Your task to perform on an android device: Do I have any events this weekend? Image 0: 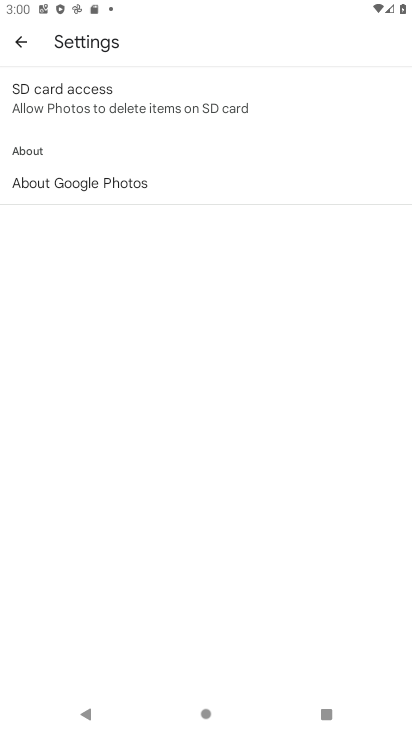
Step 0: press home button
Your task to perform on an android device: Do I have any events this weekend? Image 1: 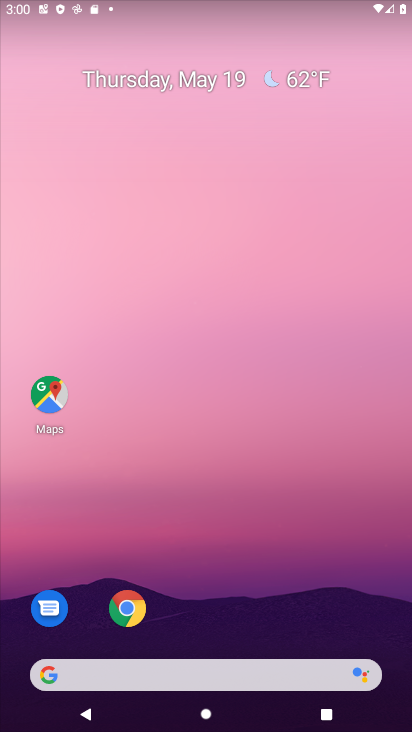
Step 1: drag from (315, 540) to (167, 84)
Your task to perform on an android device: Do I have any events this weekend? Image 2: 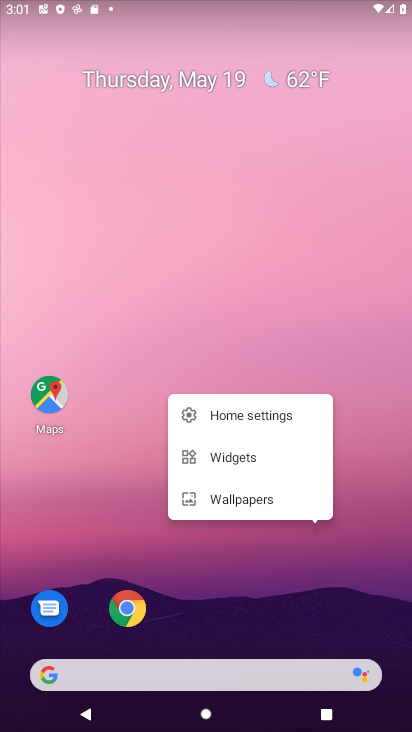
Step 2: click (218, 588)
Your task to perform on an android device: Do I have any events this weekend? Image 3: 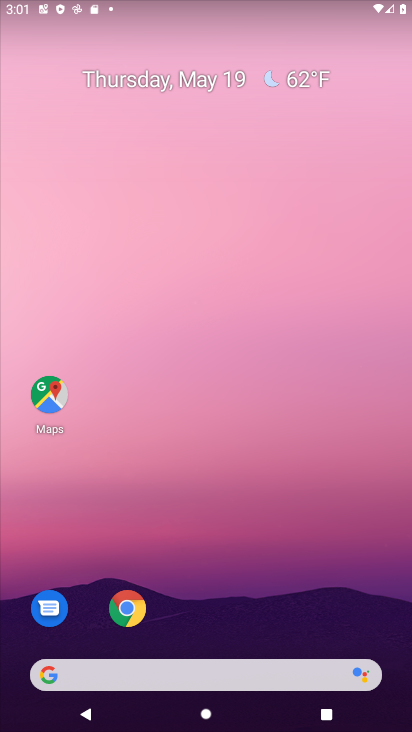
Step 3: drag from (218, 588) to (233, 248)
Your task to perform on an android device: Do I have any events this weekend? Image 4: 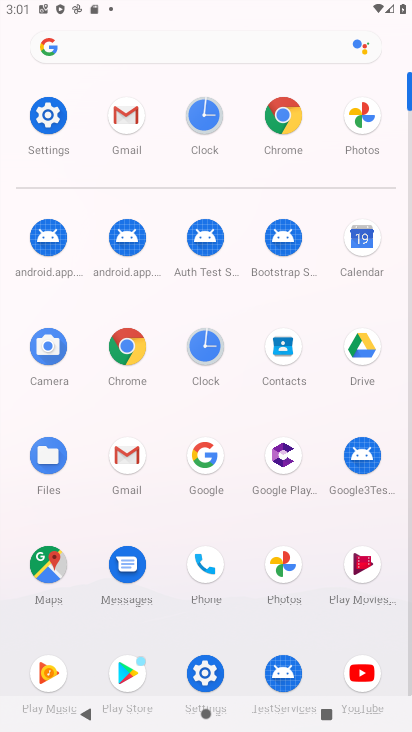
Step 4: click (202, 122)
Your task to perform on an android device: Do I have any events this weekend? Image 5: 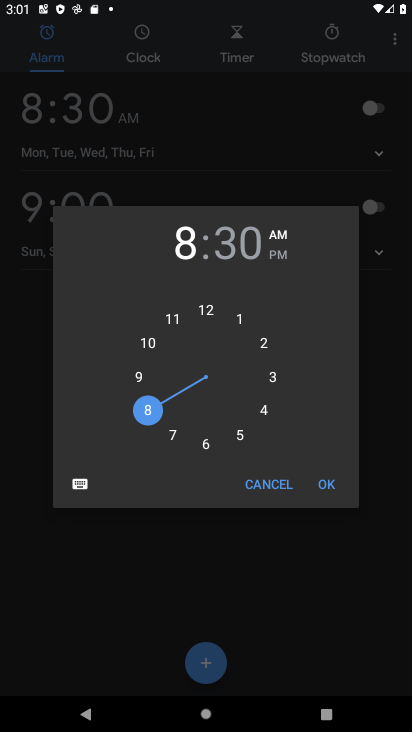
Step 5: click (206, 723)
Your task to perform on an android device: Do I have any events this weekend? Image 6: 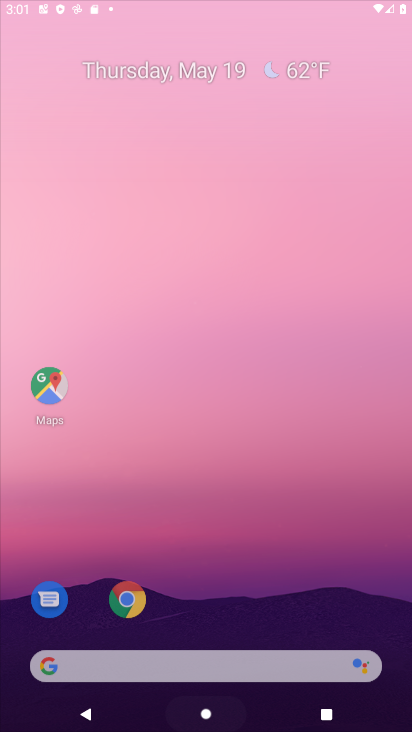
Step 6: click (206, 723)
Your task to perform on an android device: Do I have any events this weekend? Image 7: 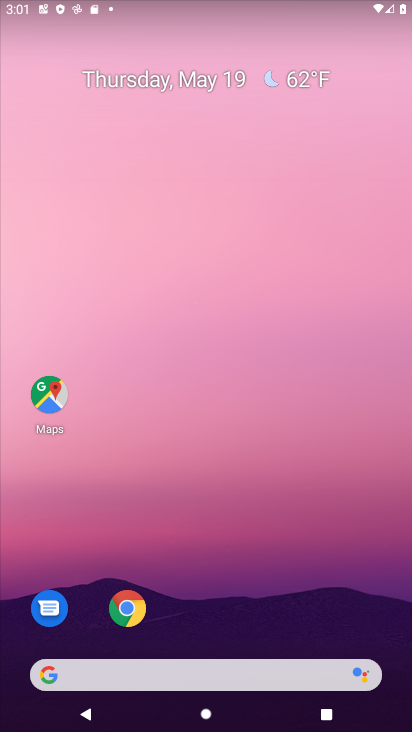
Step 7: drag from (233, 612) to (246, 436)
Your task to perform on an android device: Do I have any events this weekend? Image 8: 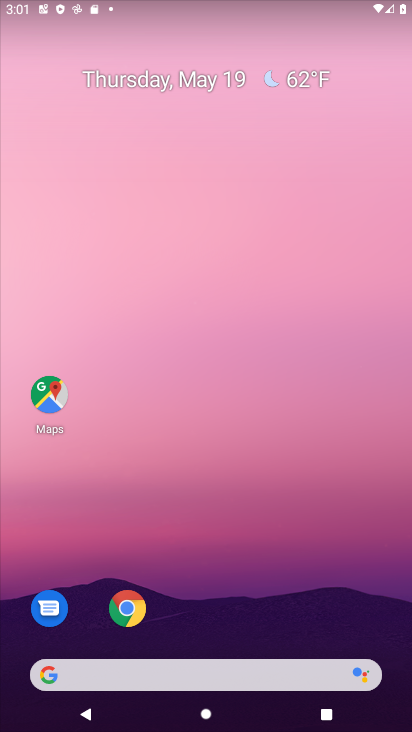
Step 8: drag from (198, 524) to (229, 15)
Your task to perform on an android device: Do I have any events this weekend? Image 9: 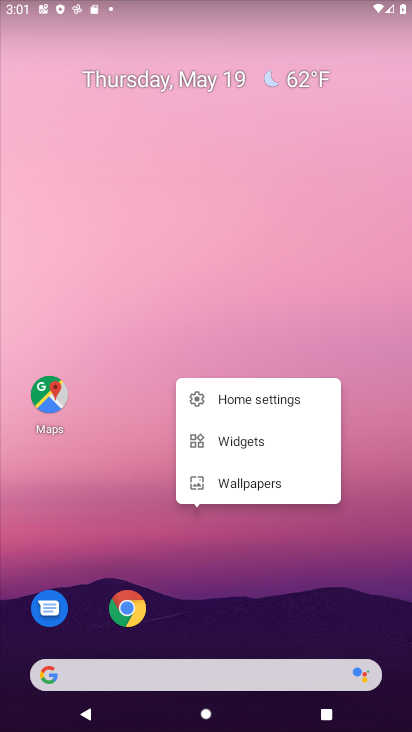
Step 9: click (287, 597)
Your task to perform on an android device: Do I have any events this weekend? Image 10: 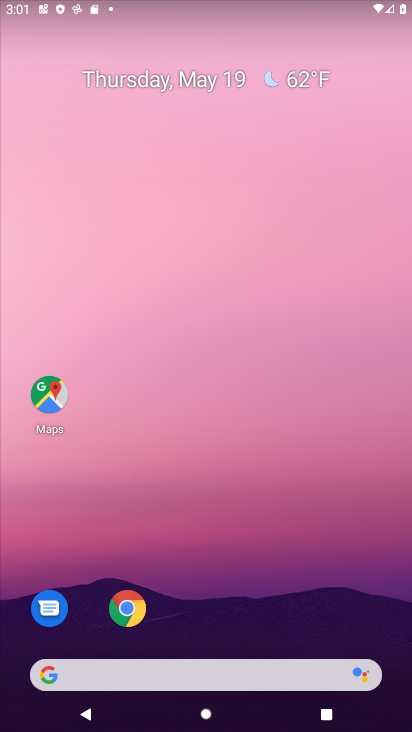
Step 10: drag from (287, 597) to (309, 247)
Your task to perform on an android device: Do I have any events this weekend? Image 11: 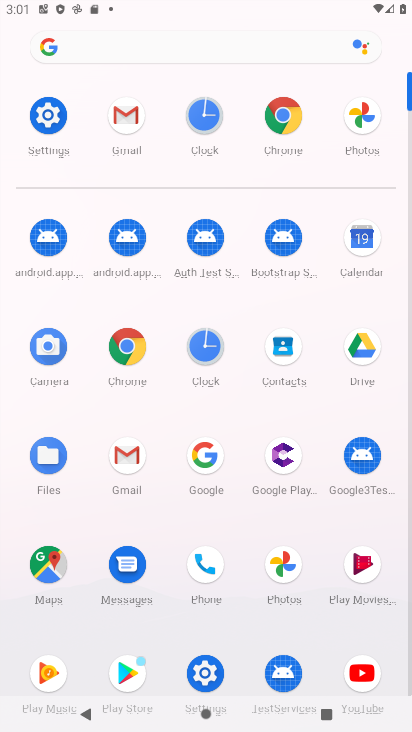
Step 11: click (344, 269)
Your task to perform on an android device: Do I have any events this weekend? Image 12: 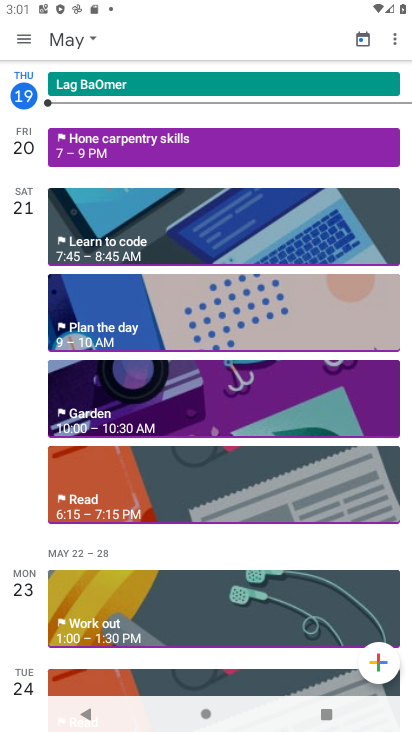
Step 12: click (16, 45)
Your task to perform on an android device: Do I have any events this weekend? Image 13: 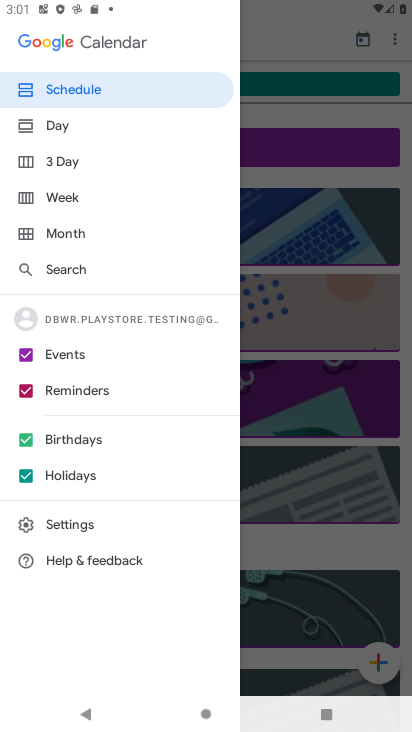
Step 13: click (67, 200)
Your task to perform on an android device: Do I have any events this weekend? Image 14: 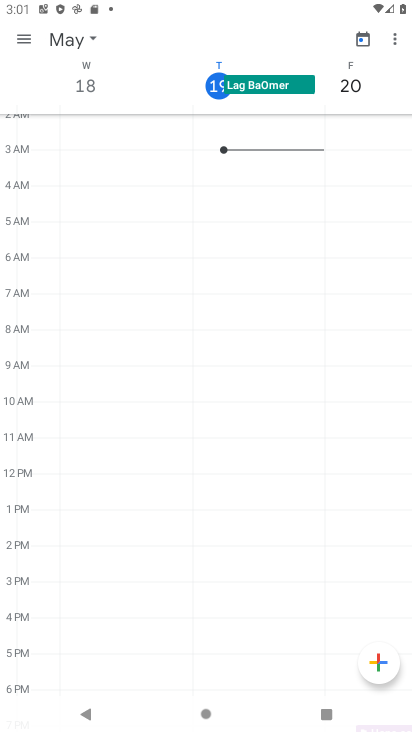
Step 14: task complete